Your task to perform on an android device: toggle notification dots Image 0: 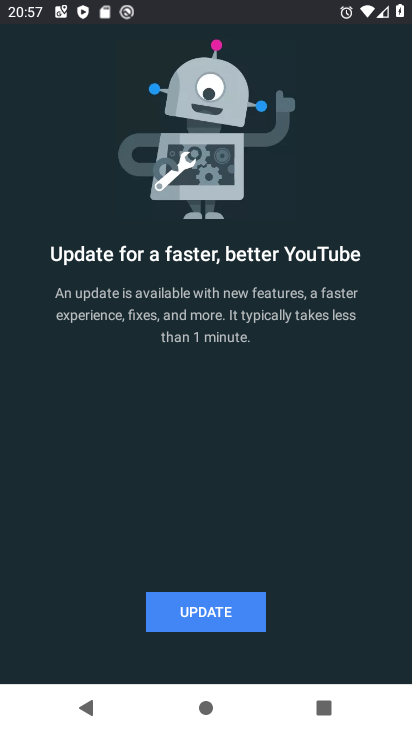
Step 0: press home button
Your task to perform on an android device: toggle notification dots Image 1: 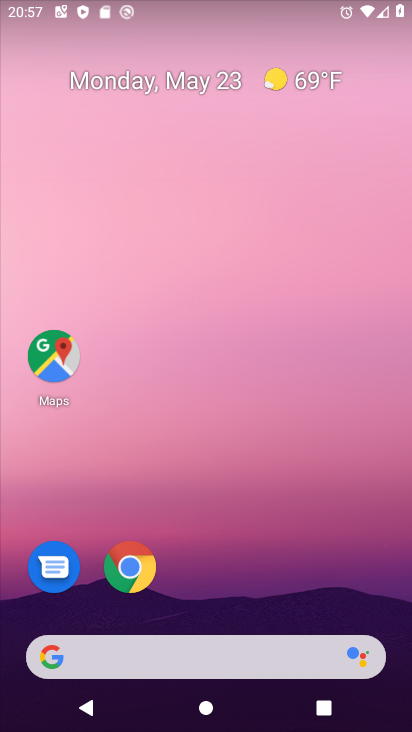
Step 1: drag from (283, 590) to (293, 124)
Your task to perform on an android device: toggle notification dots Image 2: 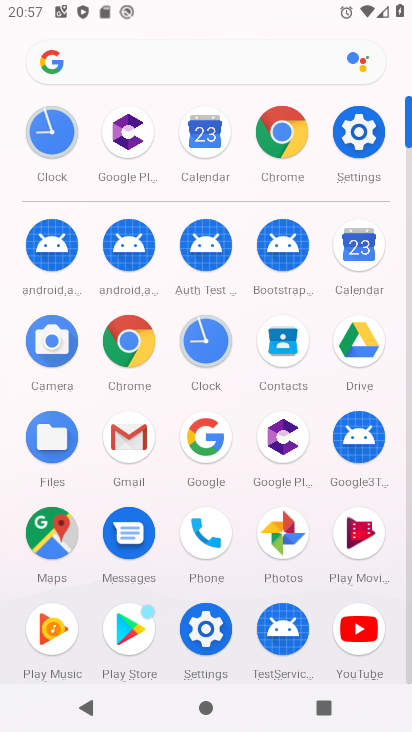
Step 2: click (352, 153)
Your task to perform on an android device: toggle notification dots Image 3: 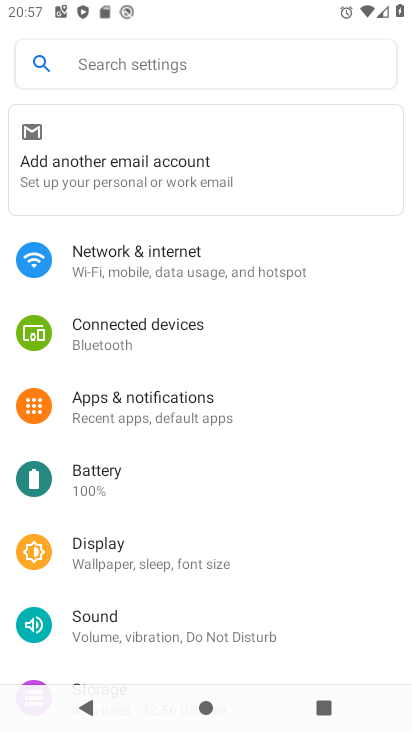
Step 3: click (200, 411)
Your task to perform on an android device: toggle notification dots Image 4: 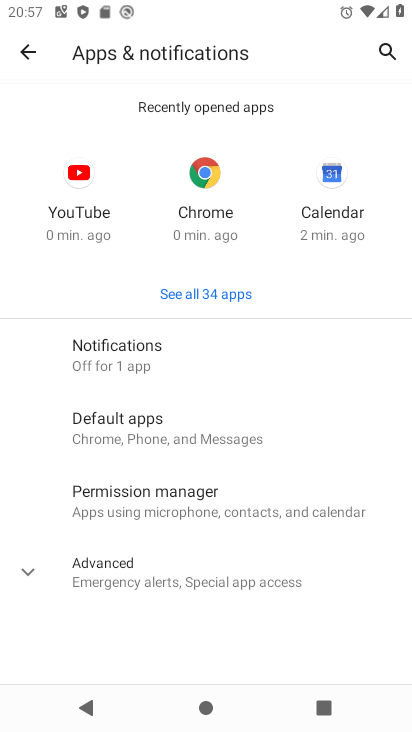
Step 4: click (126, 359)
Your task to perform on an android device: toggle notification dots Image 5: 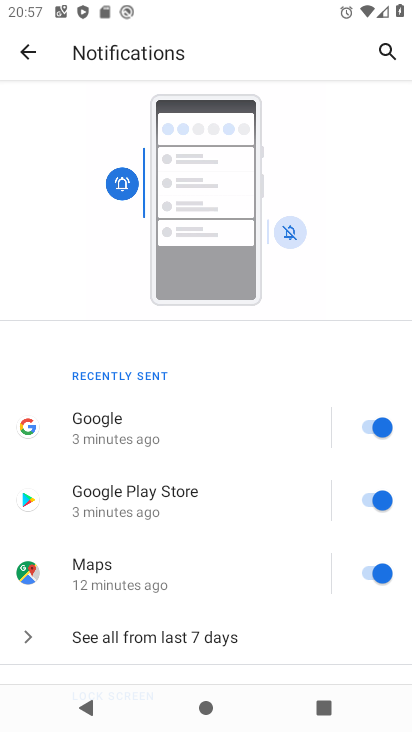
Step 5: drag from (184, 522) to (184, 162)
Your task to perform on an android device: toggle notification dots Image 6: 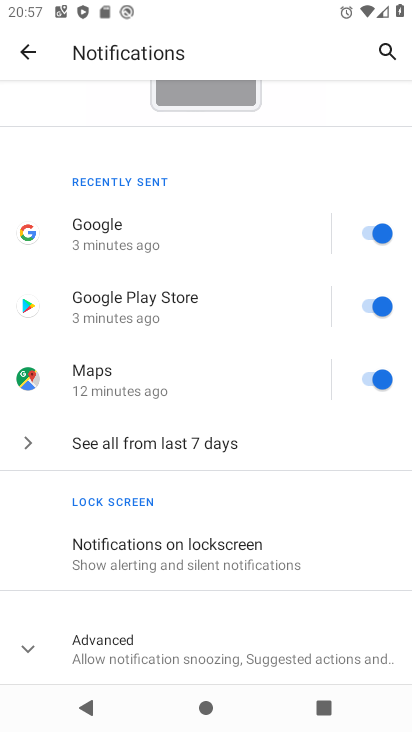
Step 6: click (122, 649)
Your task to perform on an android device: toggle notification dots Image 7: 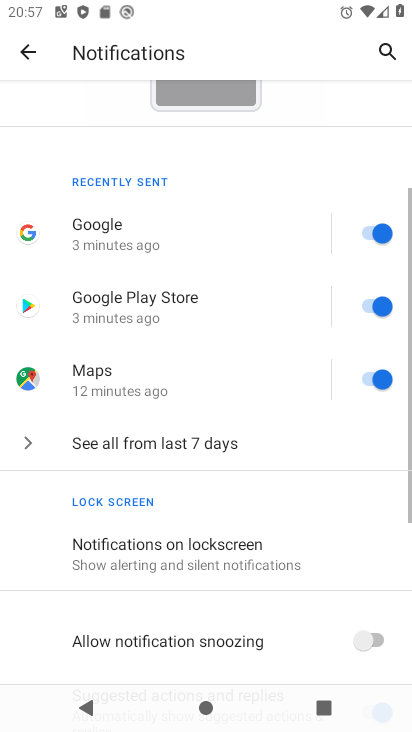
Step 7: drag from (186, 628) to (257, 143)
Your task to perform on an android device: toggle notification dots Image 8: 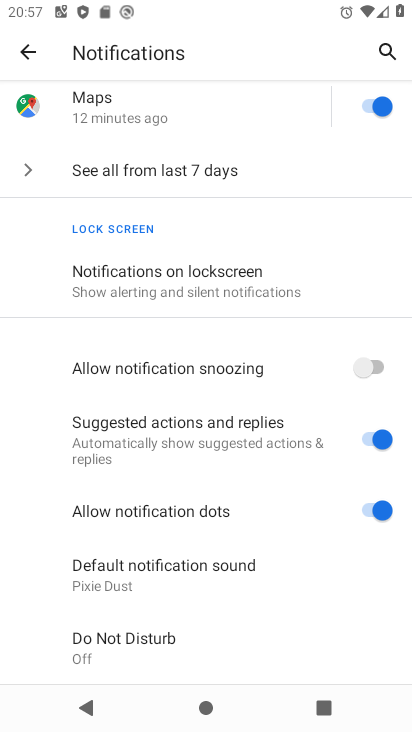
Step 8: click (368, 505)
Your task to perform on an android device: toggle notification dots Image 9: 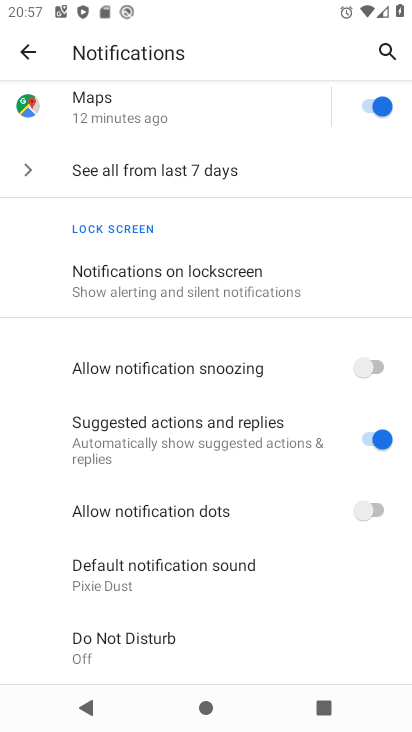
Step 9: task complete